Your task to perform on an android device: install app "Google Play Games" Image 0: 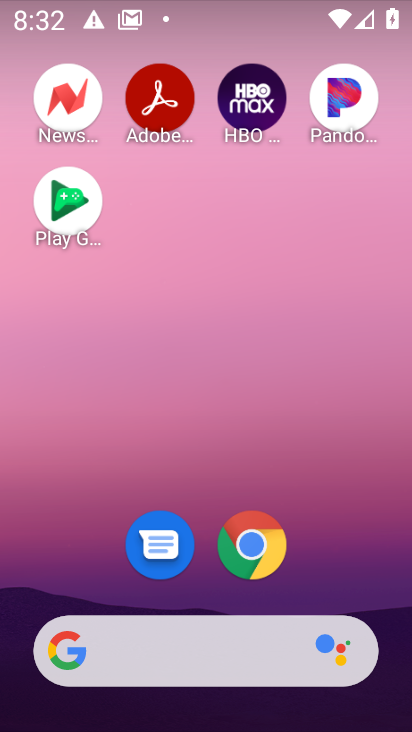
Step 0: press home button
Your task to perform on an android device: install app "Google Play Games" Image 1: 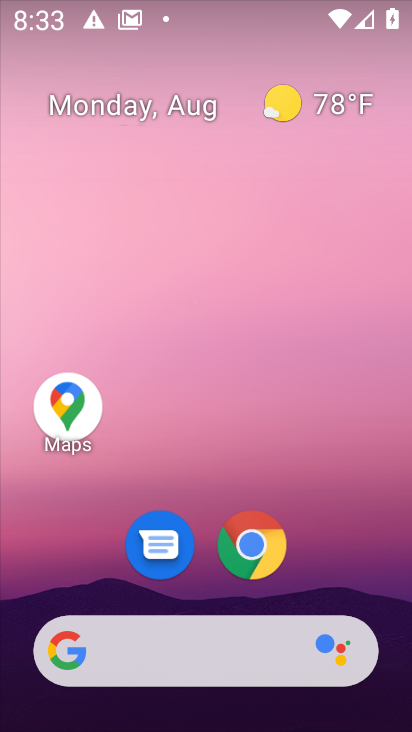
Step 1: drag from (341, 594) to (345, 85)
Your task to perform on an android device: install app "Google Play Games" Image 2: 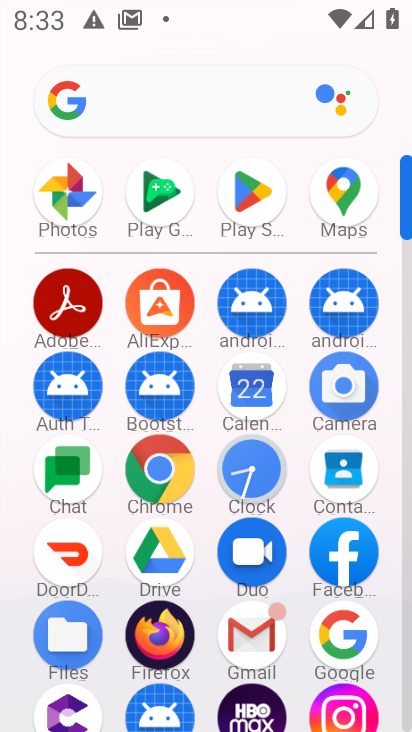
Step 2: click (259, 190)
Your task to perform on an android device: install app "Google Play Games" Image 3: 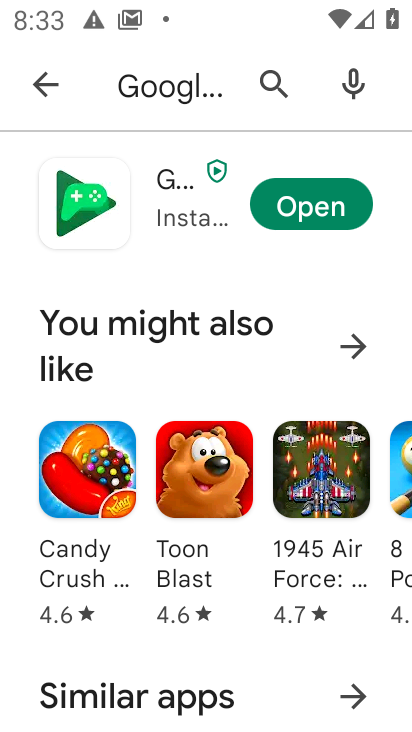
Step 3: press back button
Your task to perform on an android device: install app "Google Play Games" Image 4: 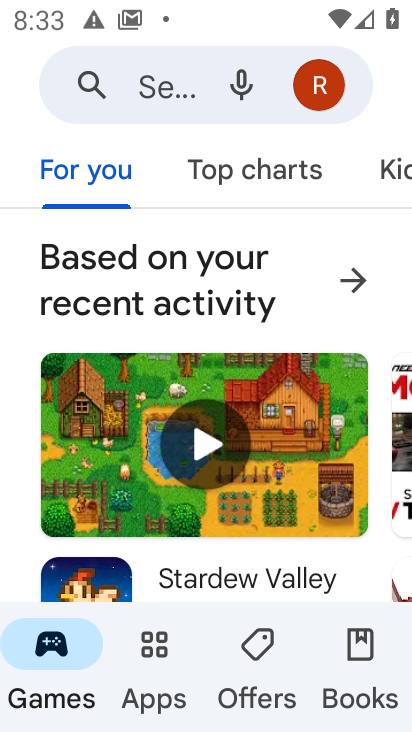
Step 4: click (174, 84)
Your task to perform on an android device: install app "Google Play Games" Image 5: 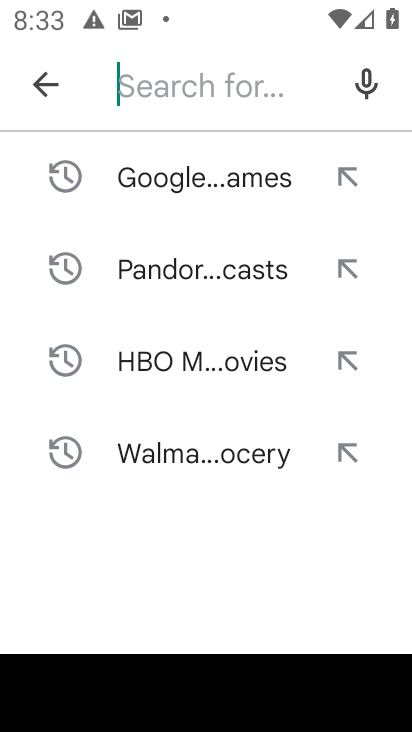
Step 5: type "Google Play Games"
Your task to perform on an android device: install app "Google Play Games" Image 6: 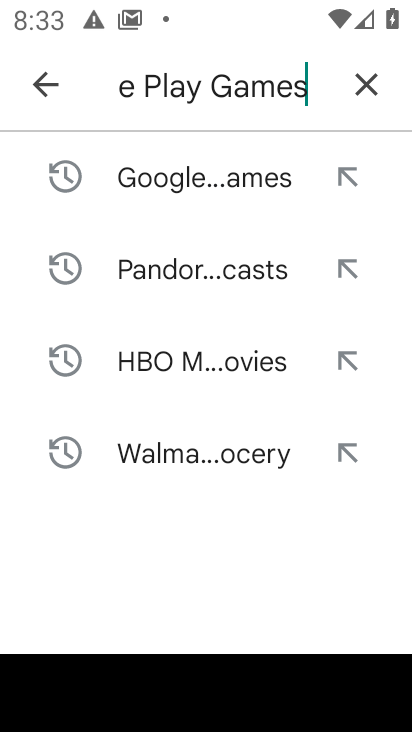
Step 6: press enter
Your task to perform on an android device: install app "Google Play Games" Image 7: 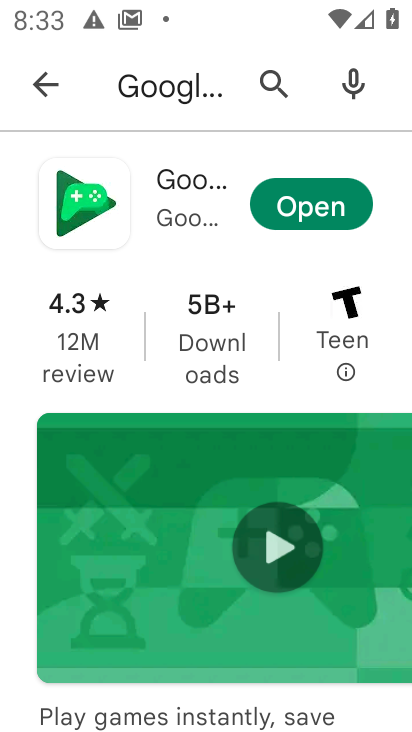
Step 7: task complete